Your task to perform on an android device: check out phone information Image 0: 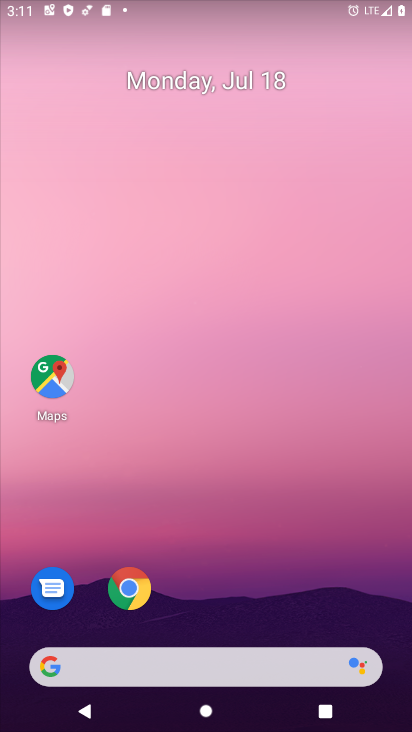
Step 0: drag from (215, 606) to (263, 10)
Your task to perform on an android device: check out phone information Image 1: 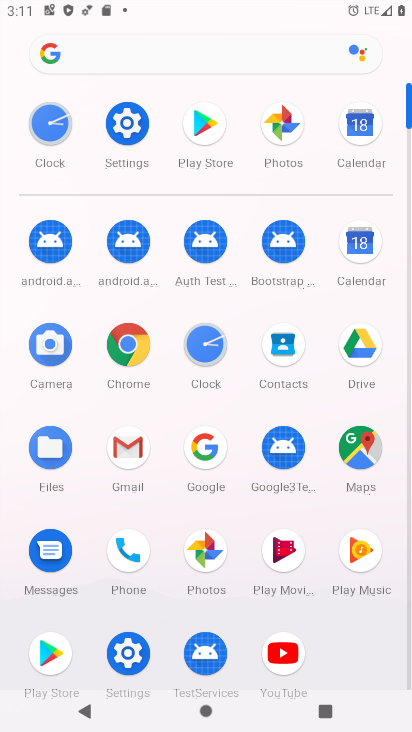
Step 1: click (119, 123)
Your task to perform on an android device: check out phone information Image 2: 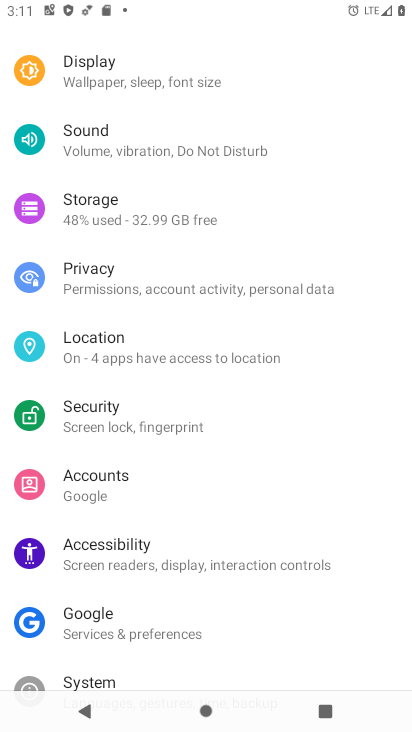
Step 2: drag from (165, 642) to (248, 9)
Your task to perform on an android device: check out phone information Image 3: 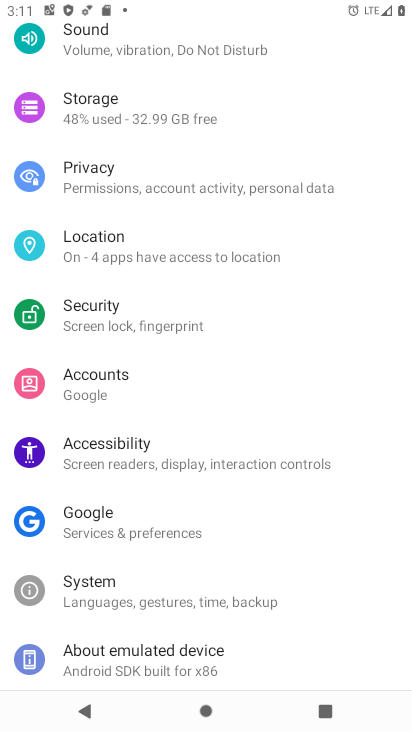
Step 3: click (144, 672)
Your task to perform on an android device: check out phone information Image 4: 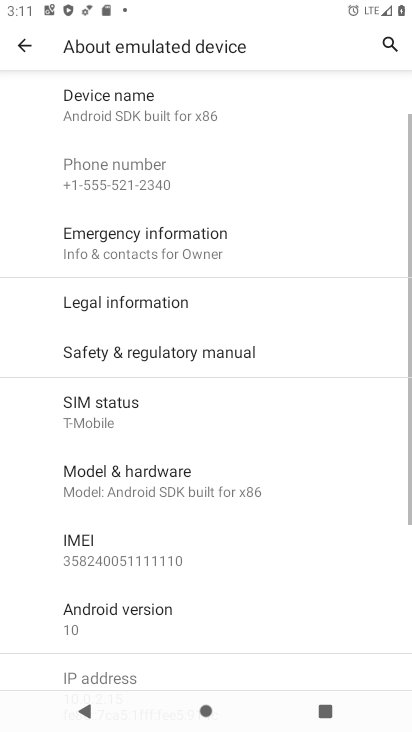
Step 4: task complete